Your task to perform on an android device: turn off airplane mode Image 0: 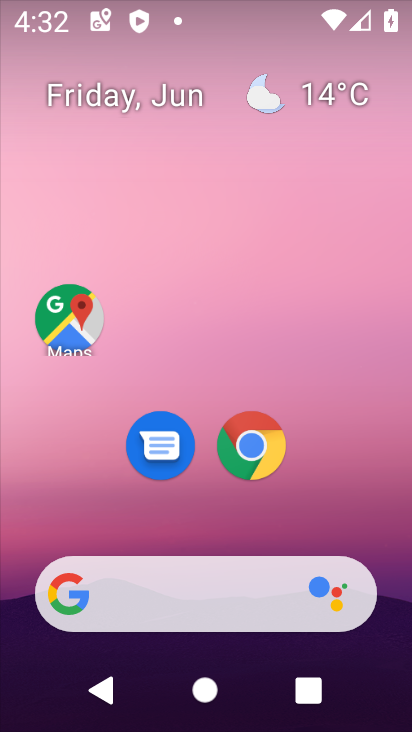
Step 0: drag from (385, 531) to (1, 74)
Your task to perform on an android device: turn off airplane mode Image 1: 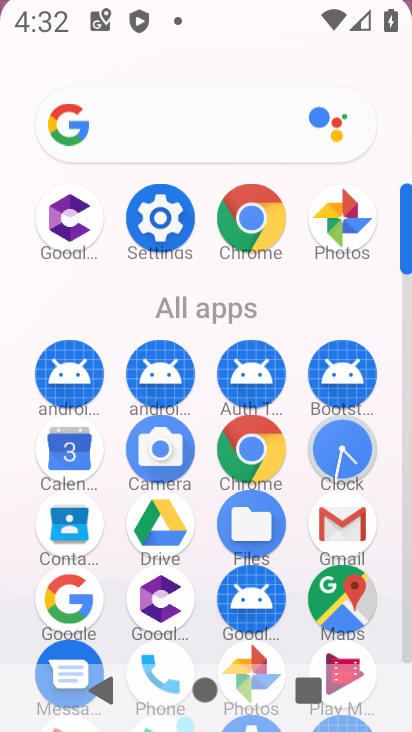
Step 1: click (149, 199)
Your task to perform on an android device: turn off airplane mode Image 2: 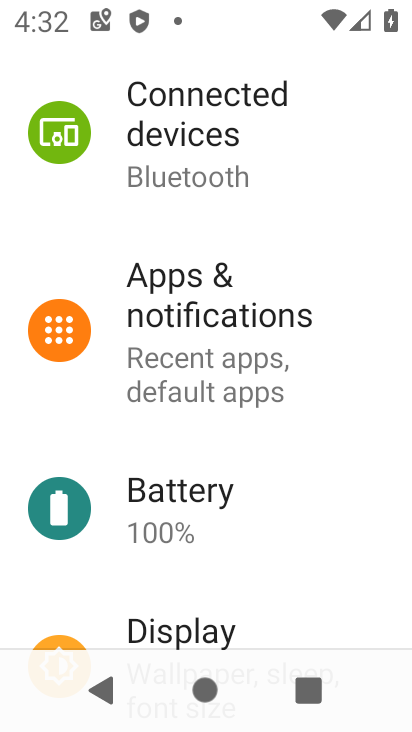
Step 2: drag from (176, 199) to (120, 703)
Your task to perform on an android device: turn off airplane mode Image 3: 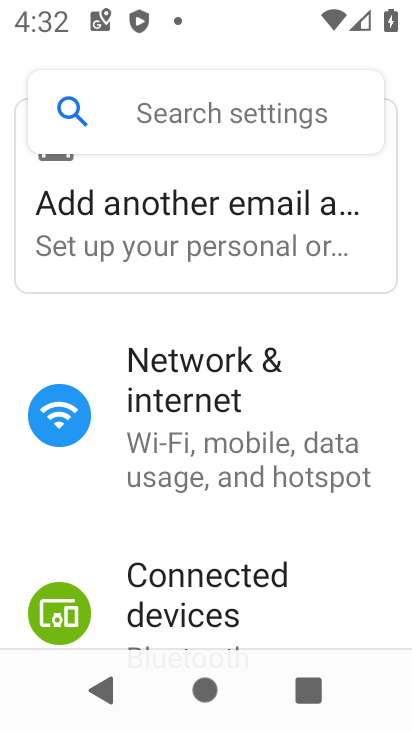
Step 3: click (250, 355)
Your task to perform on an android device: turn off airplane mode Image 4: 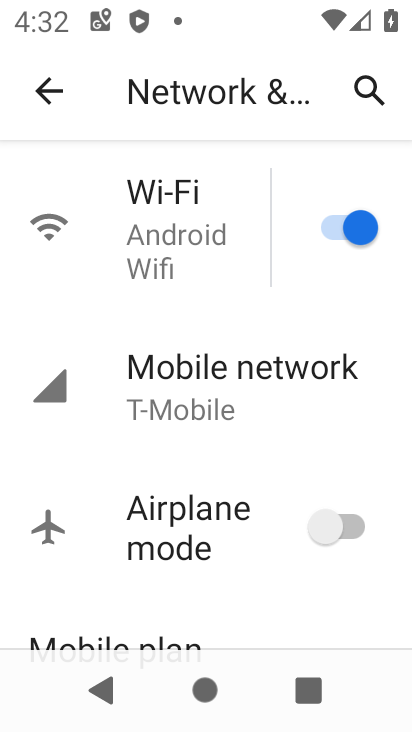
Step 4: task complete